Your task to perform on an android device: turn notification dots on Image 0: 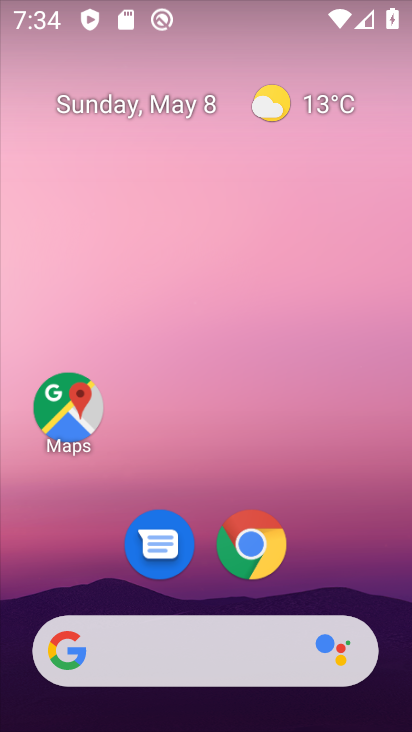
Step 0: drag from (336, 575) to (229, 24)
Your task to perform on an android device: turn notification dots on Image 1: 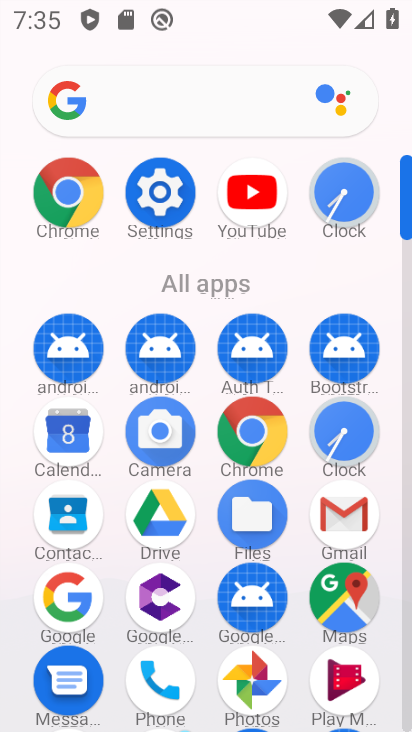
Step 1: click (162, 203)
Your task to perform on an android device: turn notification dots on Image 2: 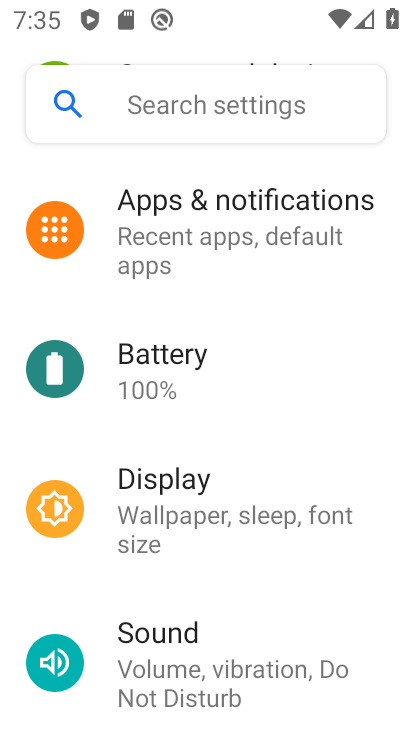
Step 2: click (223, 203)
Your task to perform on an android device: turn notification dots on Image 3: 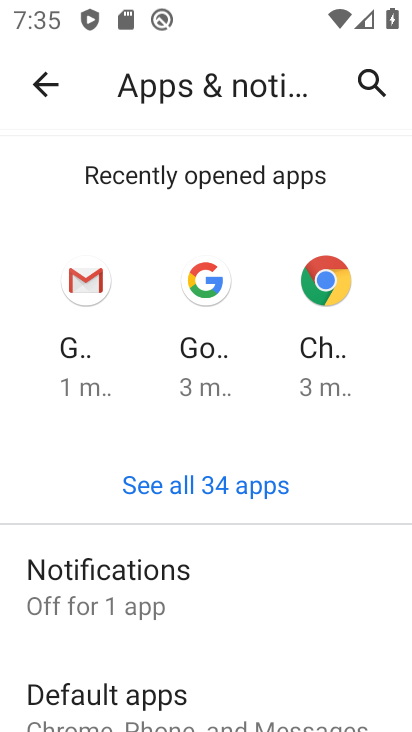
Step 3: click (116, 559)
Your task to perform on an android device: turn notification dots on Image 4: 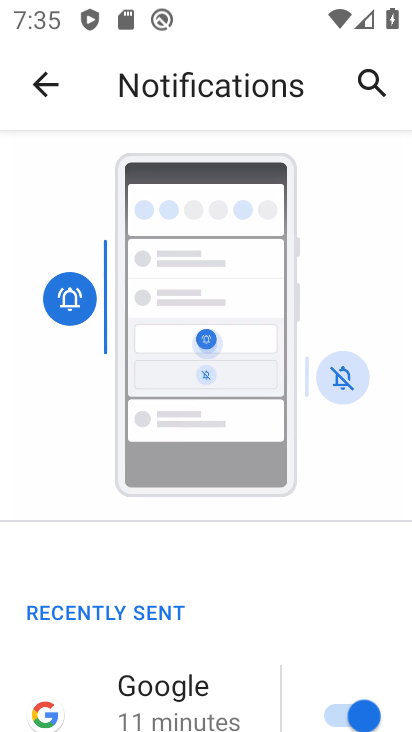
Step 4: drag from (282, 579) to (244, 143)
Your task to perform on an android device: turn notification dots on Image 5: 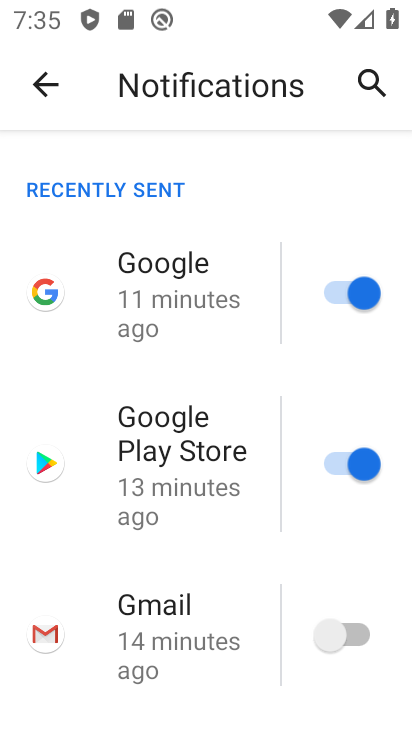
Step 5: drag from (219, 579) to (226, 124)
Your task to perform on an android device: turn notification dots on Image 6: 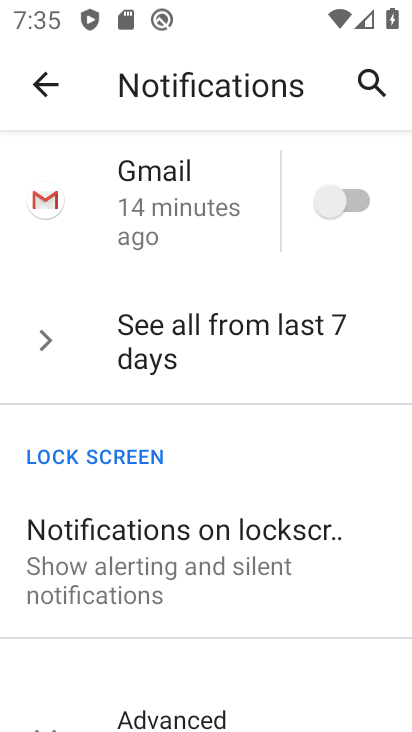
Step 6: drag from (169, 643) to (167, 297)
Your task to perform on an android device: turn notification dots on Image 7: 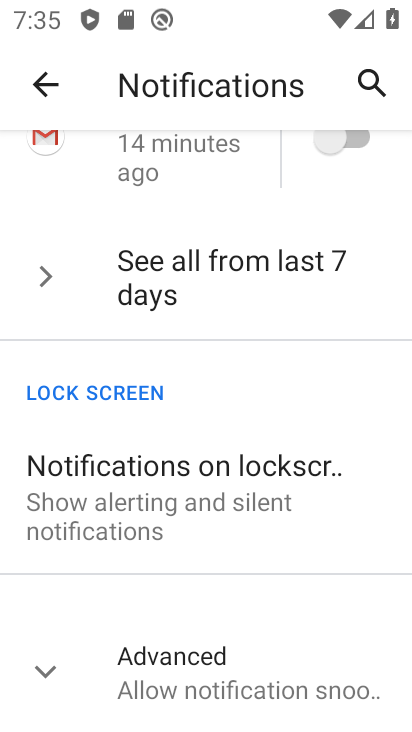
Step 7: click (38, 675)
Your task to perform on an android device: turn notification dots on Image 8: 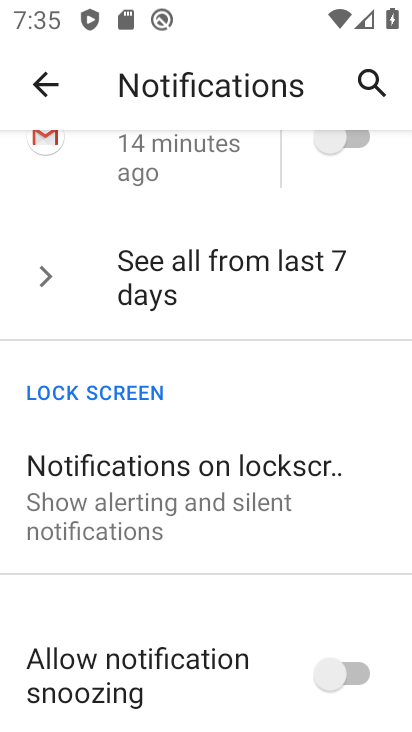
Step 8: task complete